Your task to perform on an android device: Toggle the flashlight Image 0: 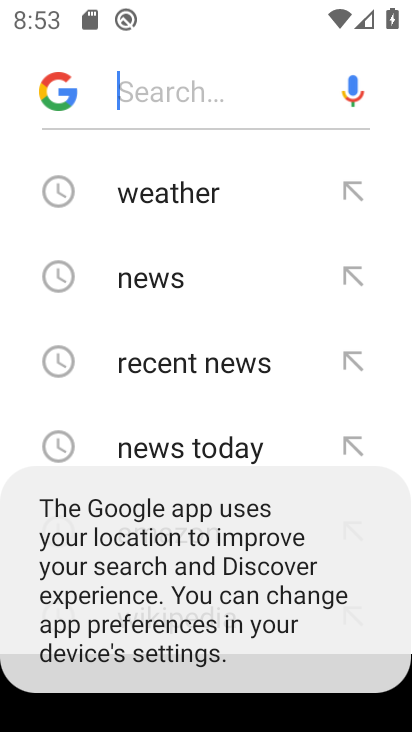
Step 0: press home button
Your task to perform on an android device: Toggle the flashlight Image 1: 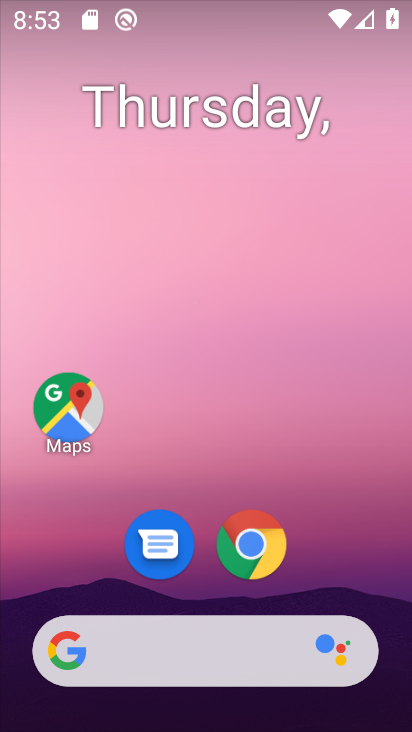
Step 1: task complete